Your task to perform on an android device: Search for vegetarian restaurants on Maps Image 0: 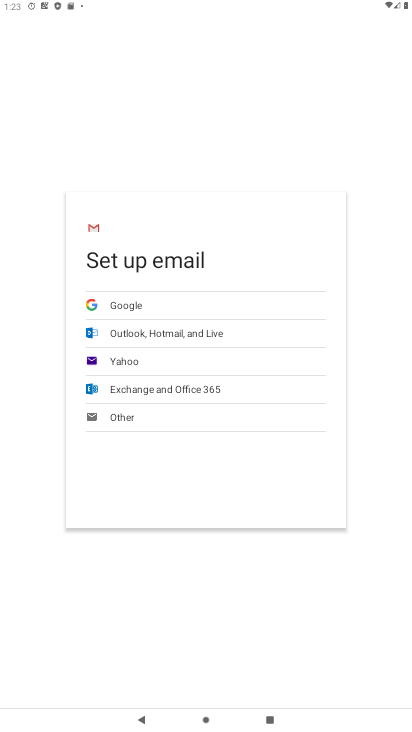
Step 0: press home button
Your task to perform on an android device: Search for vegetarian restaurants on Maps Image 1: 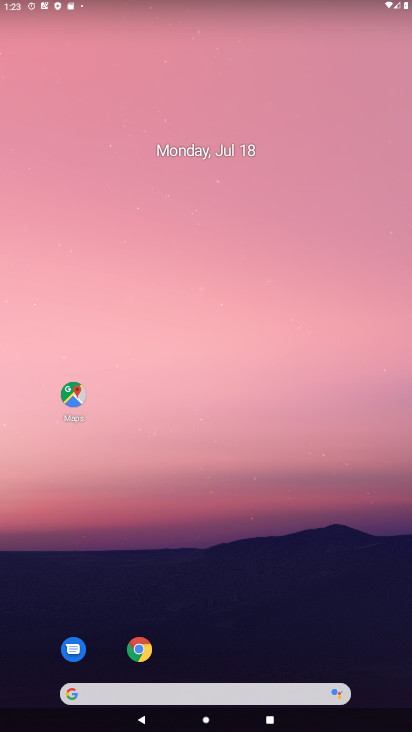
Step 1: click (73, 392)
Your task to perform on an android device: Search for vegetarian restaurants on Maps Image 2: 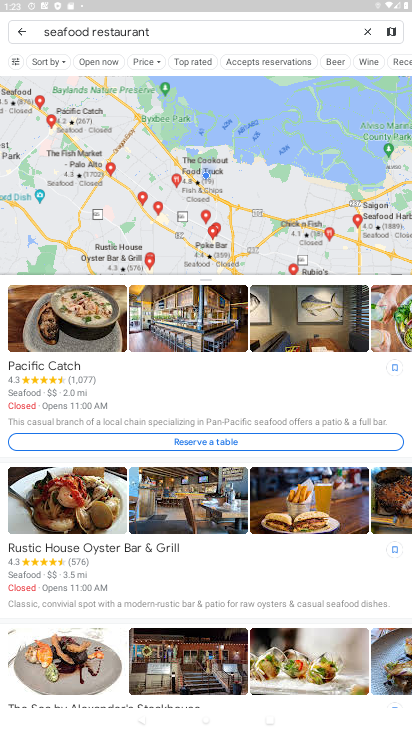
Step 2: click (367, 35)
Your task to perform on an android device: Search for vegetarian restaurants on Maps Image 3: 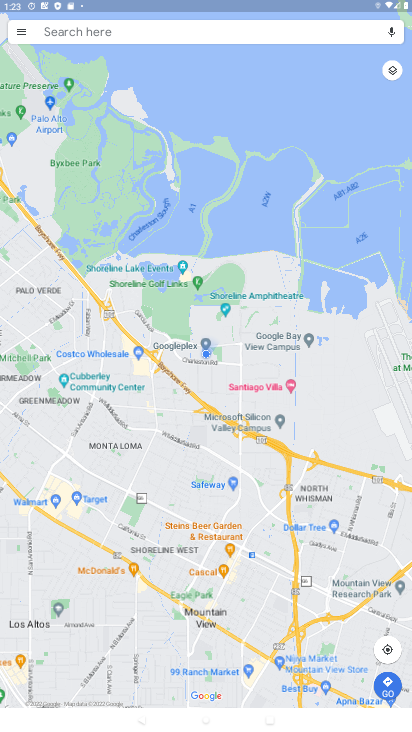
Step 3: click (139, 34)
Your task to perform on an android device: Search for vegetarian restaurants on Maps Image 4: 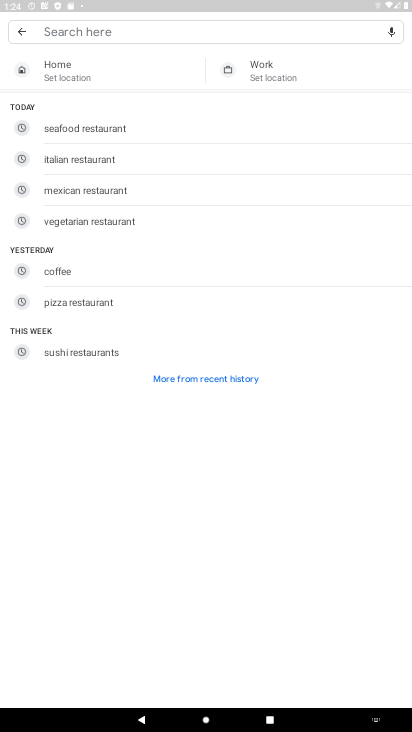
Step 4: click (83, 223)
Your task to perform on an android device: Search for vegetarian restaurants on Maps Image 5: 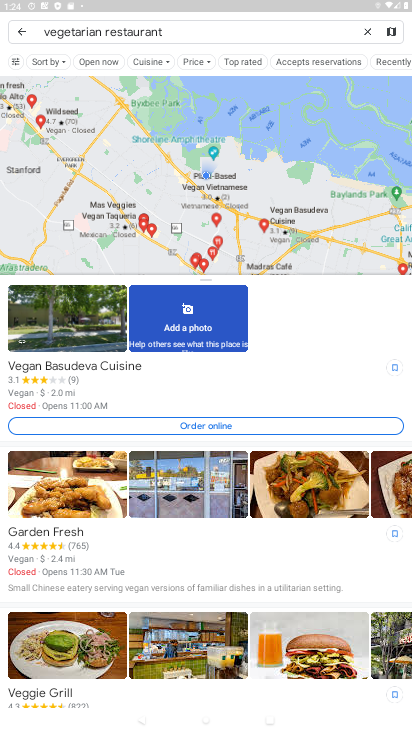
Step 5: task complete